Your task to perform on an android device: turn off picture-in-picture Image 0: 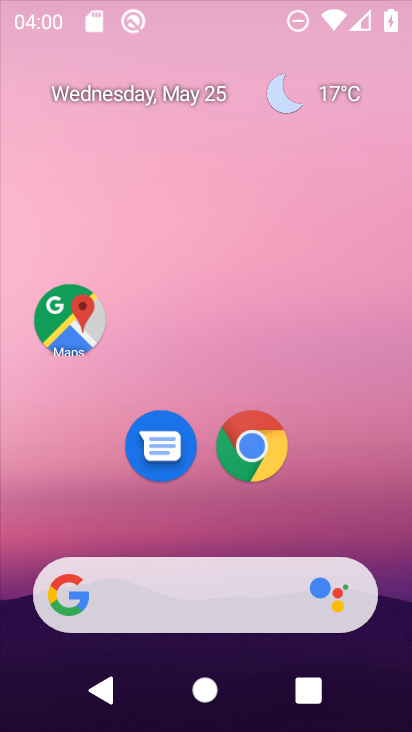
Step 0: task complete